Your task to perform on an android device: Show me recent news Image 0: 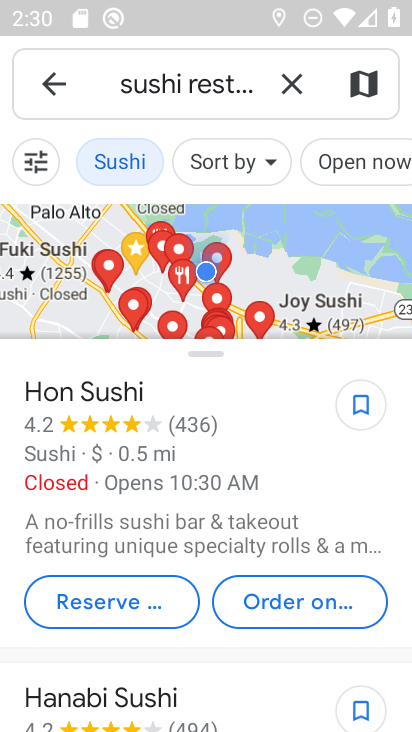
Step 0: press home button
Your task to perform on an android device: Show me recent news Image 1: 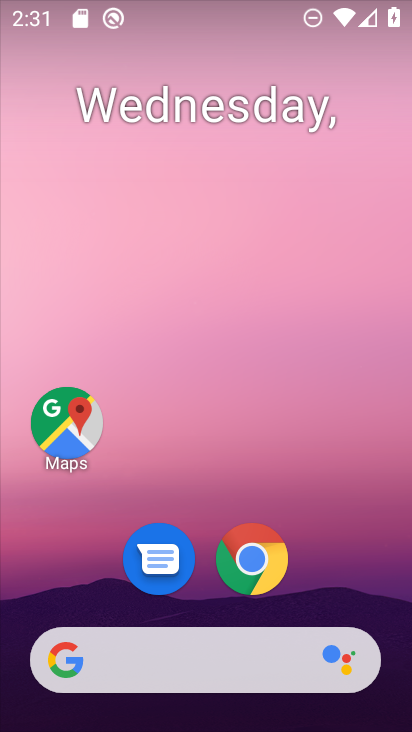
Step 1: click (276, 557)
Your task to perform on an android device: Show me recent news Image 2: 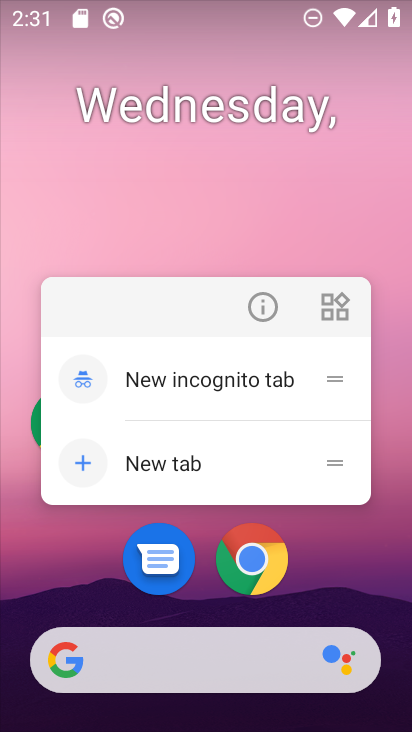
Step 2: click (276, 557)
Your task to perform on an android device: Show me recent news Image 3: 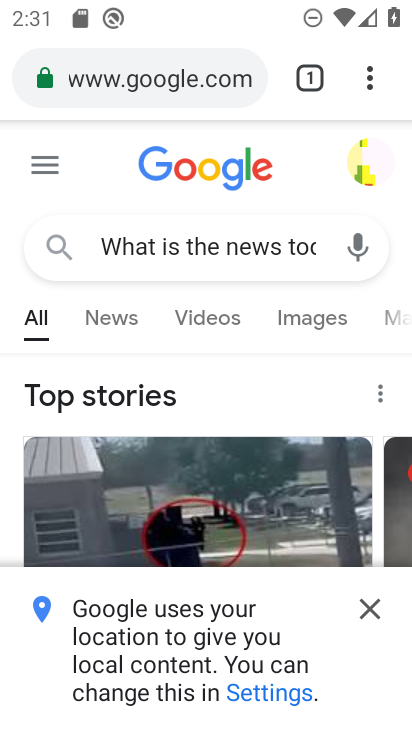
Step 3: click (187, 87)
Your task to perform on an android device: Show me recent news Image 4: 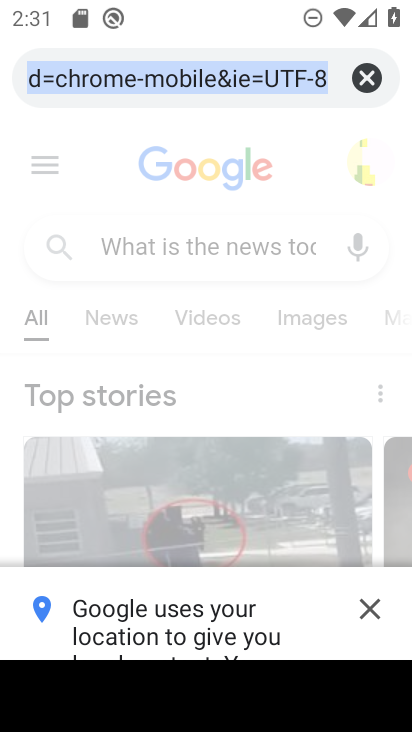
Step 4: click (366, 84)
Your task to perform on an android device: Show me recent news Image 5: 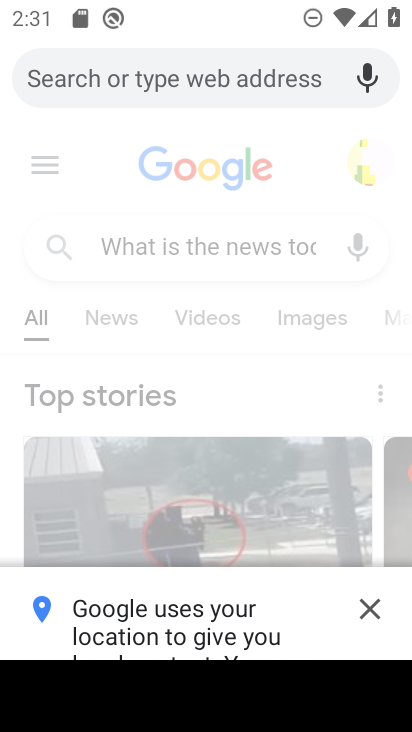
Step 5: type "Show me recent news"
Your task to perform on an android device: Show me recent news Image 6: 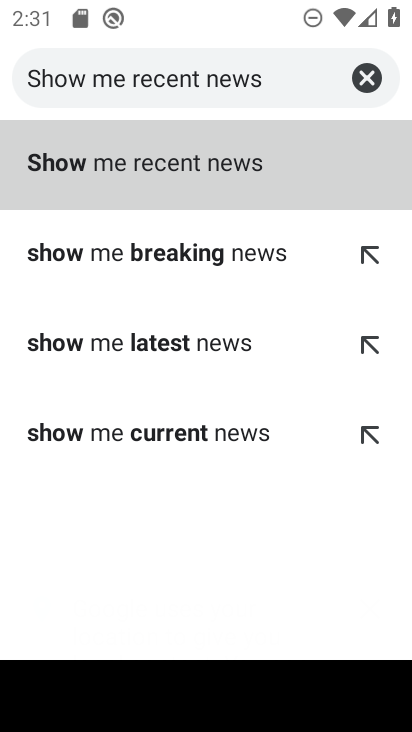
Step 6: click (249, 178)
Your task to perform on an android device: Show me recent news Image 7: 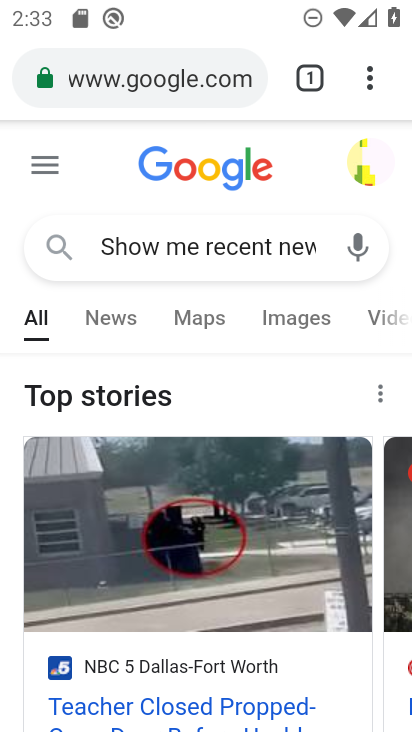
Step 7: task complete